Your task to perform on an android device: Open Google Maps and go to "Timeline" Image 0: 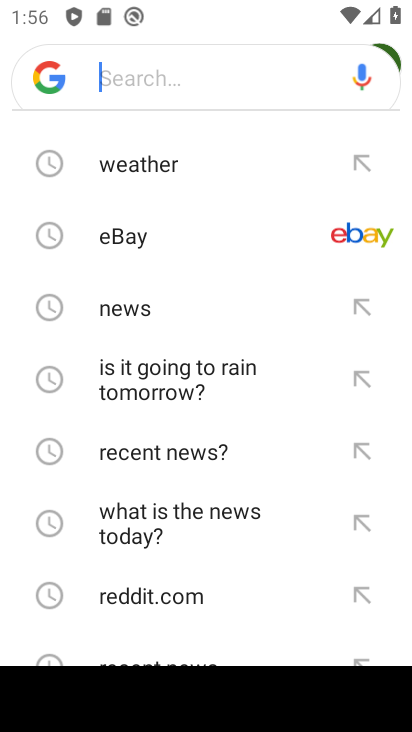
Step 0: press home button
Your task to perform on an android device: Open Google Maps and go to "Timeline" Image 1: 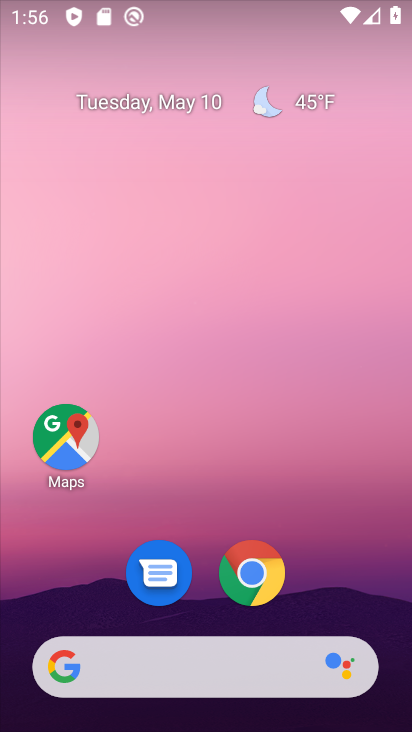
Step 1: click (63, 410)
Your task to perform on an android device: Open Google Maps and go to "Timeline" Image 2: 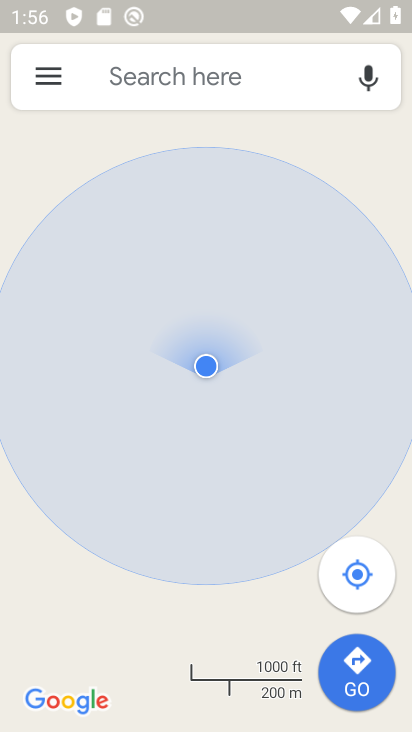
Step 2: click (59, 89)
Your task to perform on an android device: Open Google Maps and go to "Timeline" Image 3: 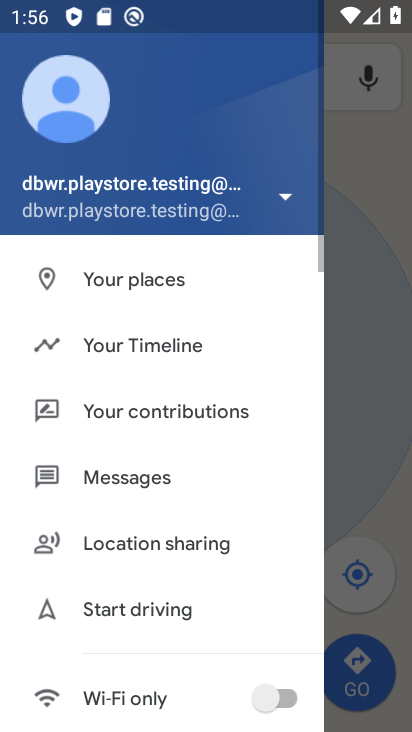
Step 3: click (151, 352)
Your task to perform on an android device: Open Google Maps and go to "Timeline" Image 4: 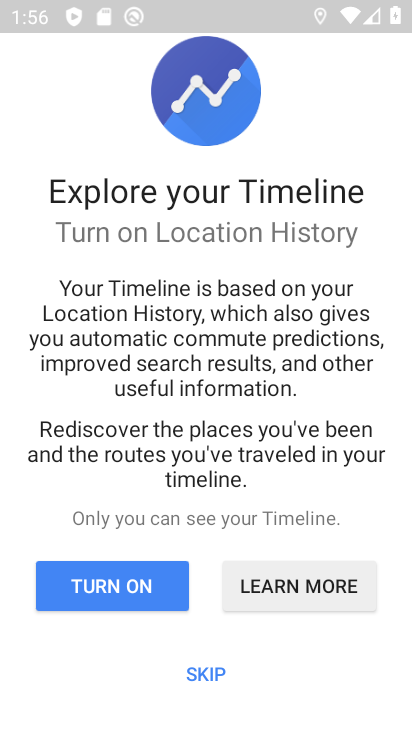
Step 4: click (199, 670)
Your task to perform on an android device: Open Google Maps and go to "Timeline" Image 5: 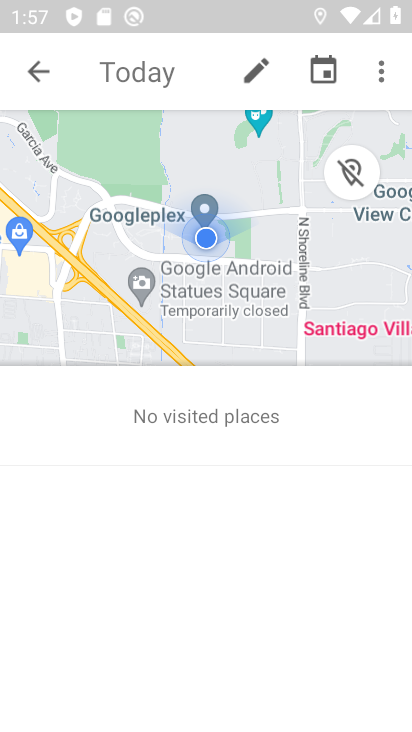
Step 5: task complete